Your task to perform on an android device: turn off data saver in the chrome app Image 0: 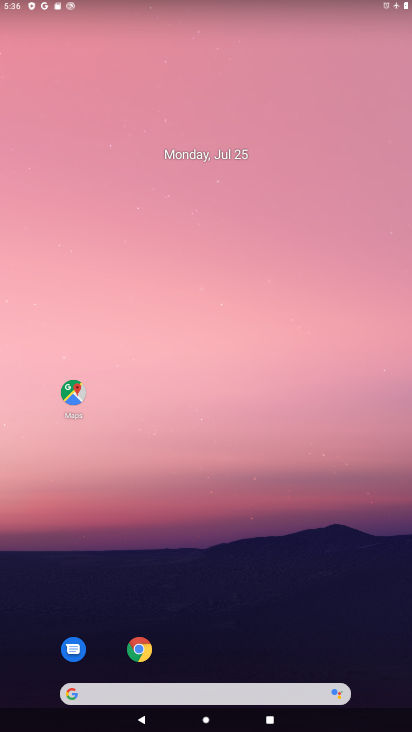
Step 0: drag from (295, 686) to (357, 55)
Your task to perform on an android device: turn off data saver in the chrome app Image 1: 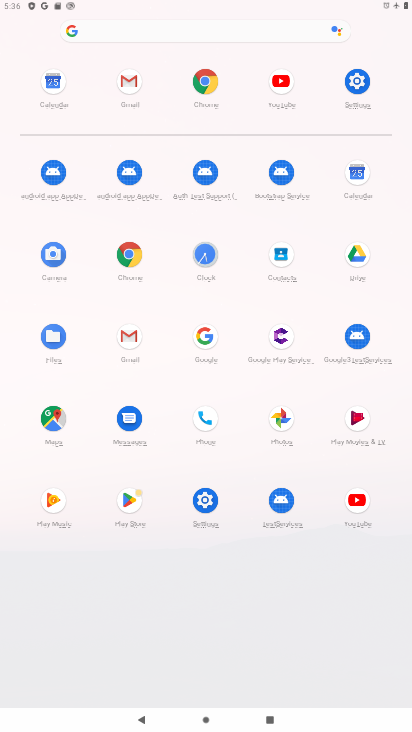
Step 1: click (127, 253)
Your task to perform on an android device: turn off data saver in the chrome app Image 2: 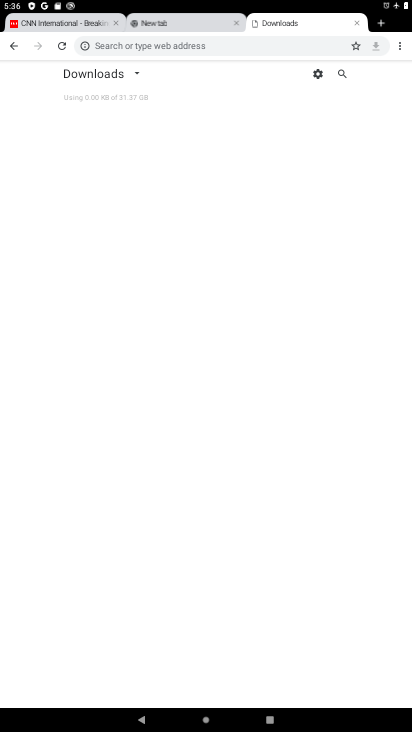
Step 2: drag from (402, 49) to (332, 212)
Your task to perform on an android device: turn off data saver in the chrome app Image 3: 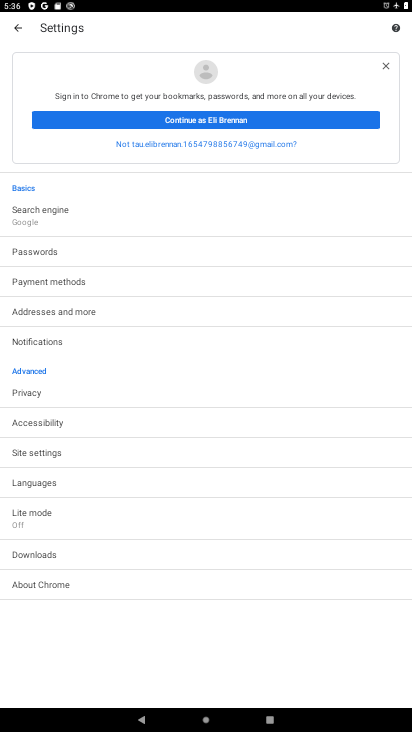
Step 3: click (49, 515)
Your task to perform on an android device: turn off data saver in the chrome app Image 4: 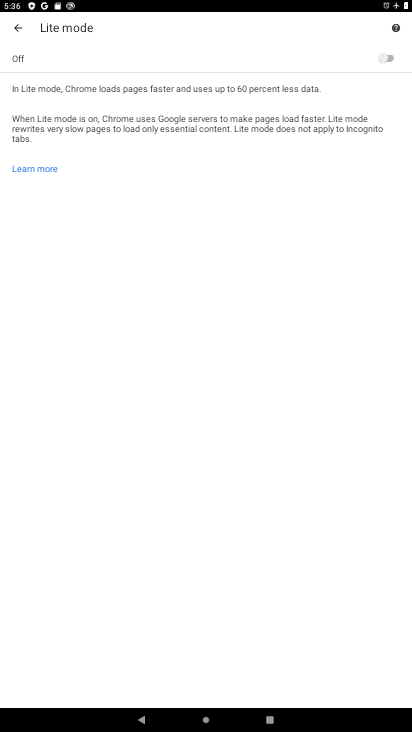
Step 4: task complete